Your task to perform on an android device: delete a single message in the gmail app Image 0: 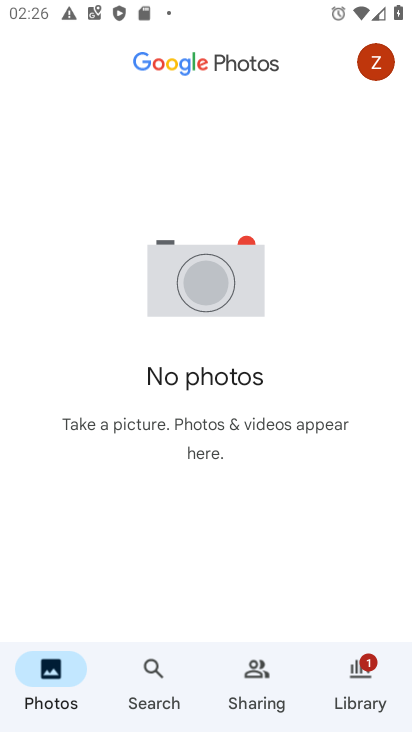
Step 0: press home button
Your task to perform on an android device: delete a single message in the gmail app Image 1: 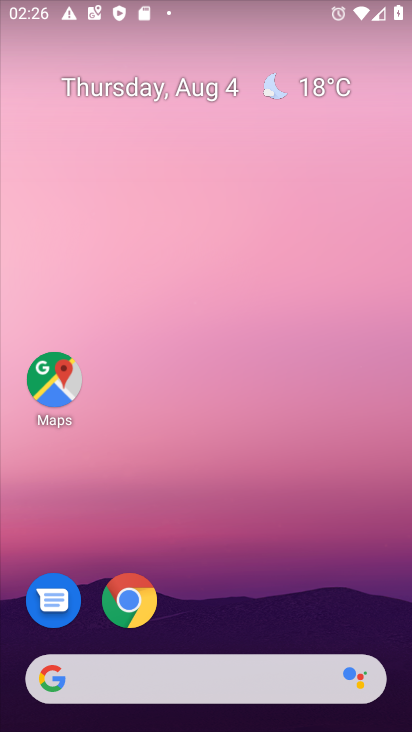
Step 1: drag from (237, 632) to (333, 146)
Your task to perform on an android device: delete a single message in the gmail app Image 2: 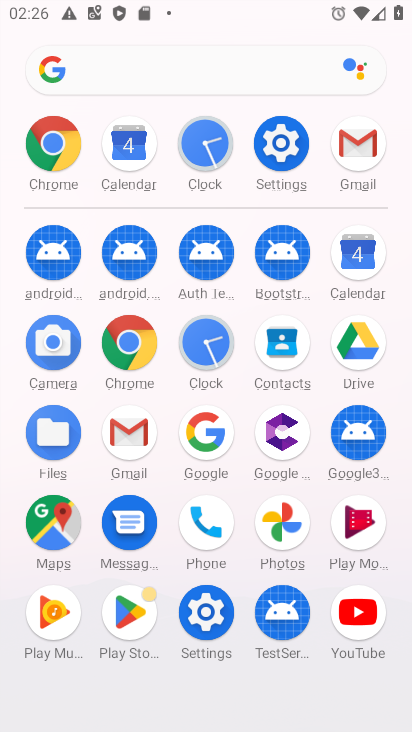
Step 2: click (355, 154)
Your task to perform on an android device: delete a single message in the gmail app Image 3: 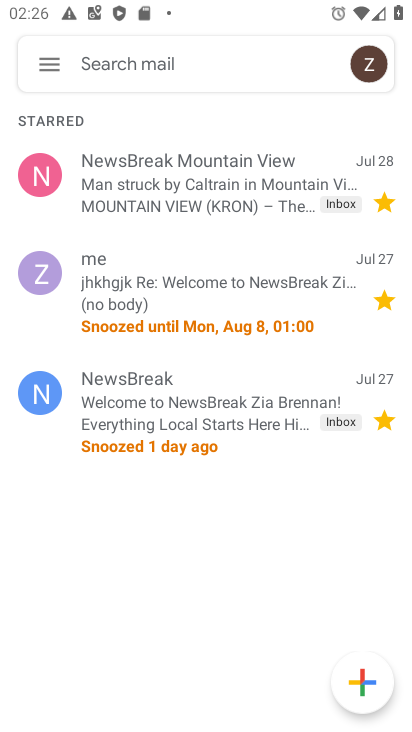
Step 3: click (42, 190)
Your task to perform on an android device: delete a single message in the gmail app Image 4: 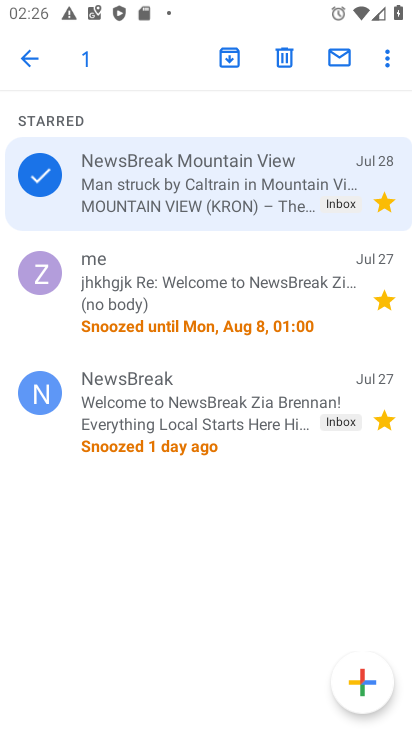
Step 4: click (284, 52)
Your task to perform on an android device: delete a single message in the gmail app Image 5: 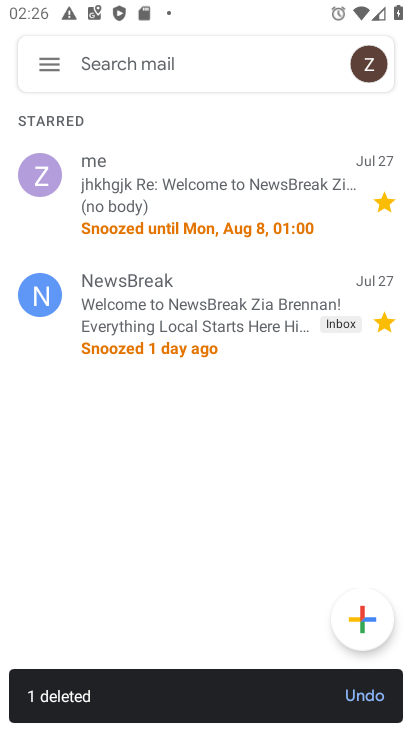
Step 5: task complete